Your task to perform on an android device: open app "Fetch Rewards" (install if not already installed) and enter user name: "Westwood@yahoo.com" and password: "qualifying" Image 0: 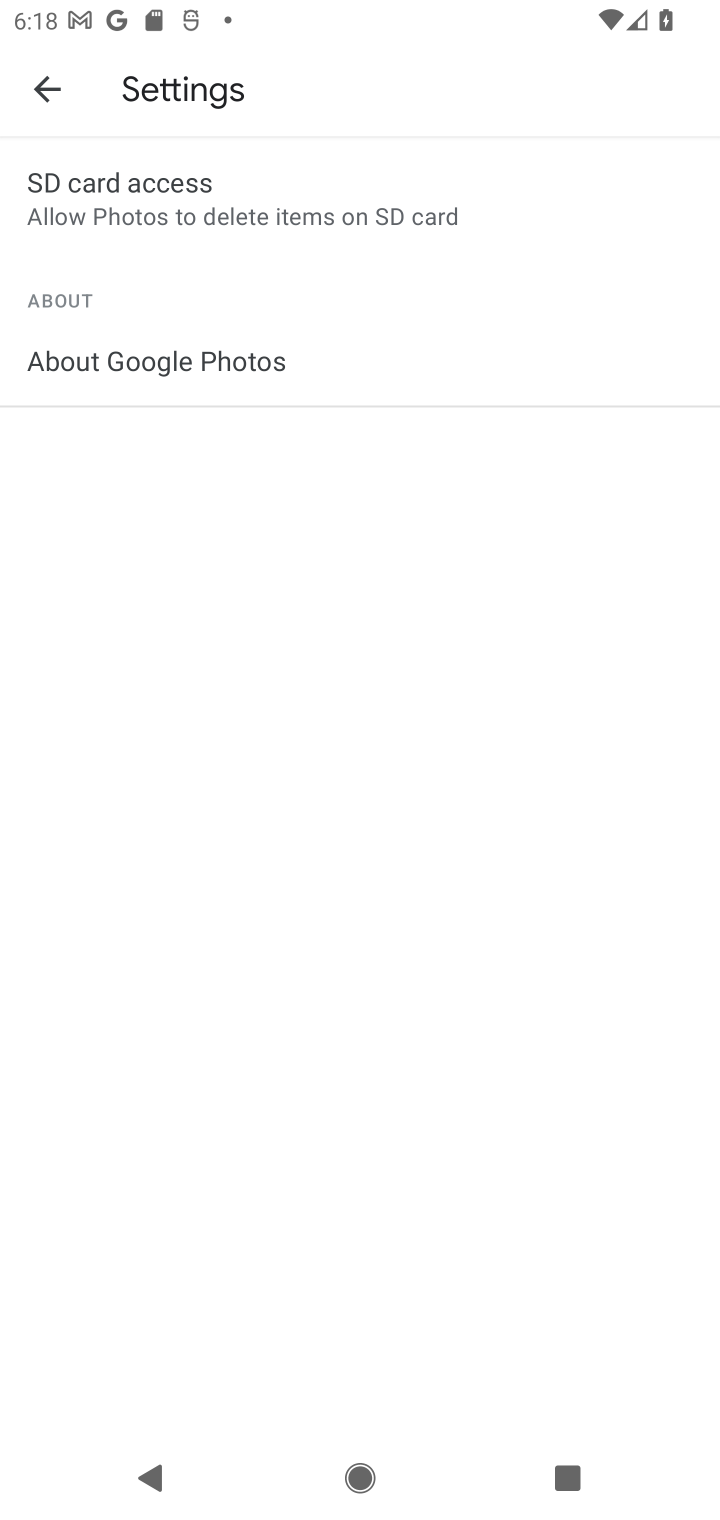
Step 0: press home button
Your task to perform on an android device: open app "Fetch Rewards" (install if not already installed) and enter user name: "Westwood@yahoo.com" and password: "qualifying" Image 1: 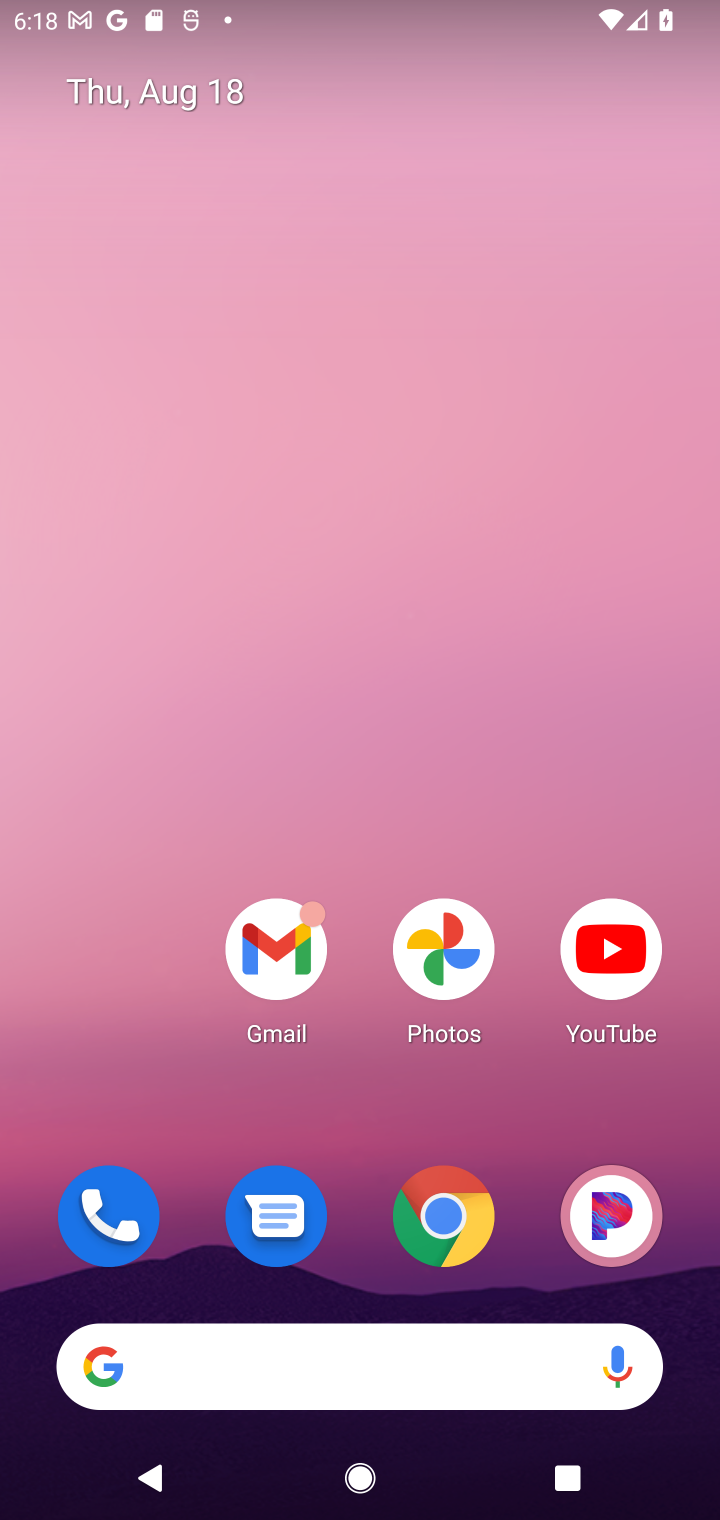
Step 1: drag from (533, 1264) to (474, 200)
Your task to perform on an android device: open app "Fetch Rewards" (install if not already installed) and enter user name: "Westwood@yahoo.com" and password: "qualifying" Image 2: 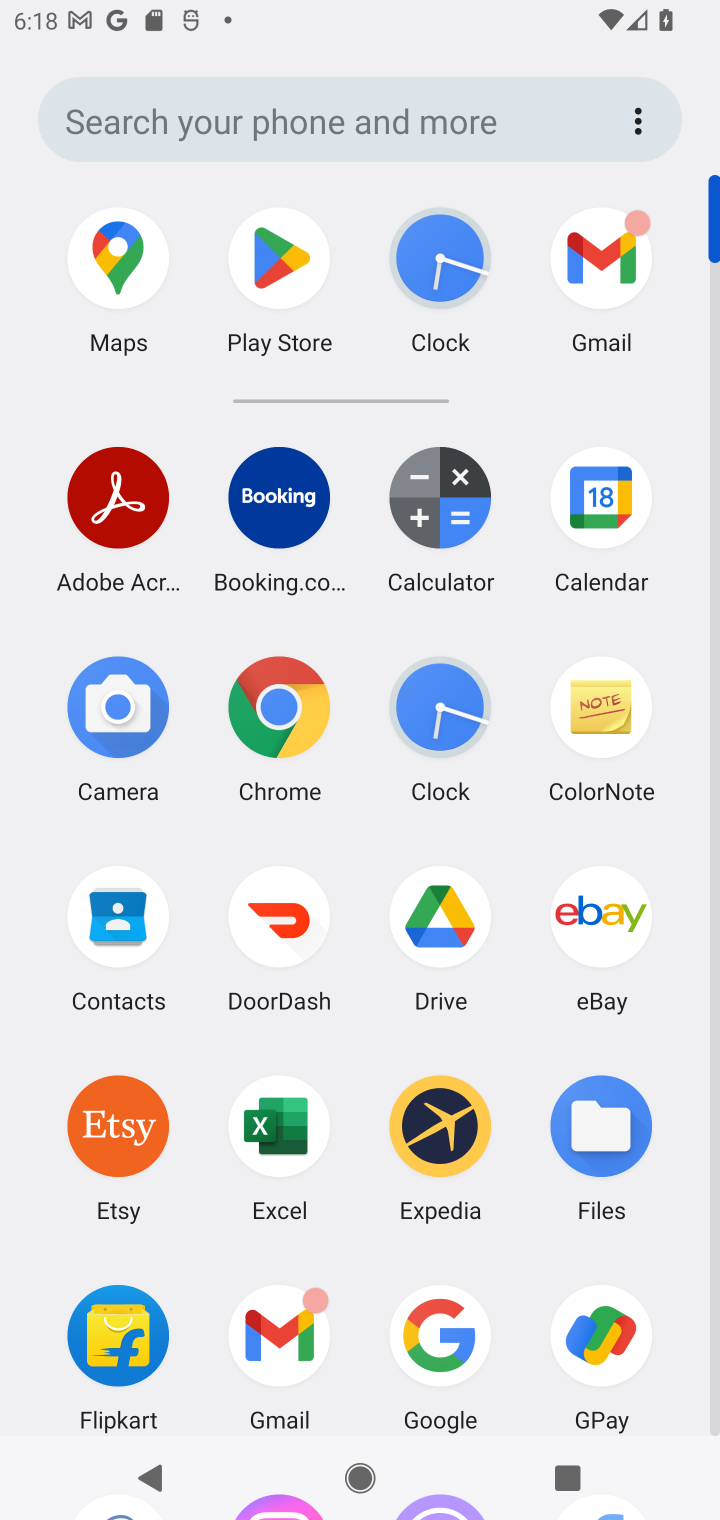
Step 2: drag from (525, 1264) to (512, 524)
Your task to perform on an android device: open app "Fetch Rewards" (install if not already installed) and enter user name: "Westwood@yahoo.com" and password: "qualifying" Image 3: 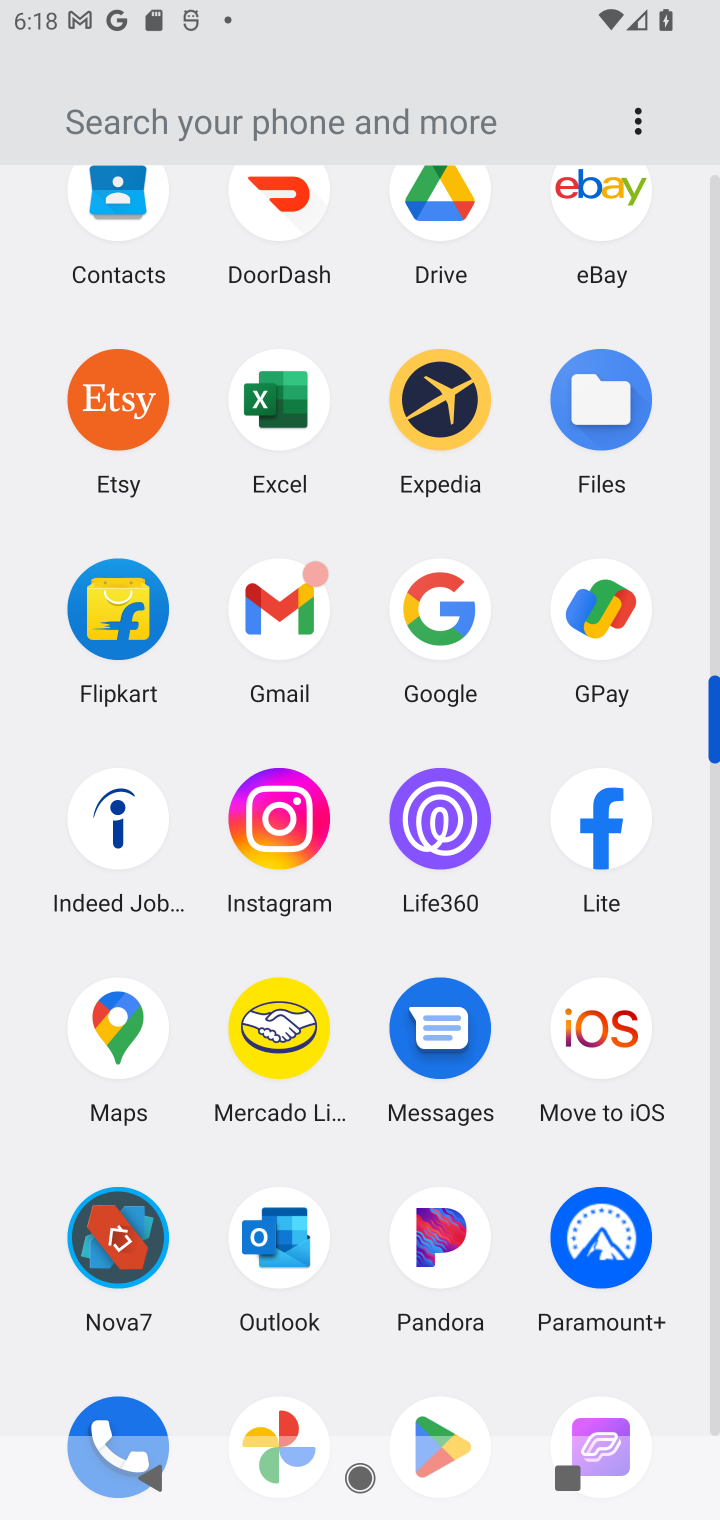
Step 3: drag from (512, 1315) to (501, 577)
Your task to perform on an android device: open app "Fetch Rewards" (install if not already installed) and enter user name: "Westwood@yahoo.com" and password: "qualifying" Image 4: 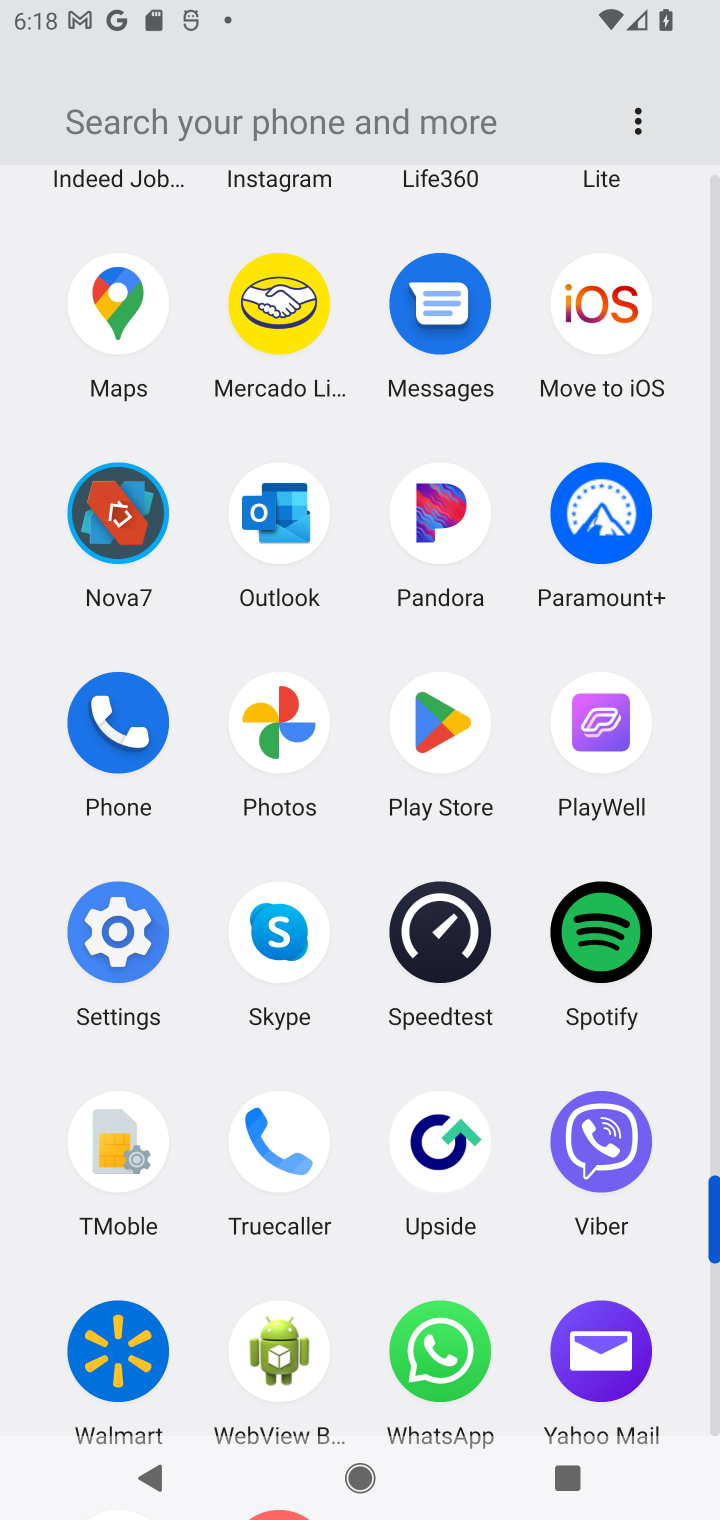
Step 4: click (441, 718)
Your task to perform on an android device: open app "Fetch Rewards" (install if not already installed) and enter user name: "Westwood@yahoo.com" and password: "qualifying" Image 5: 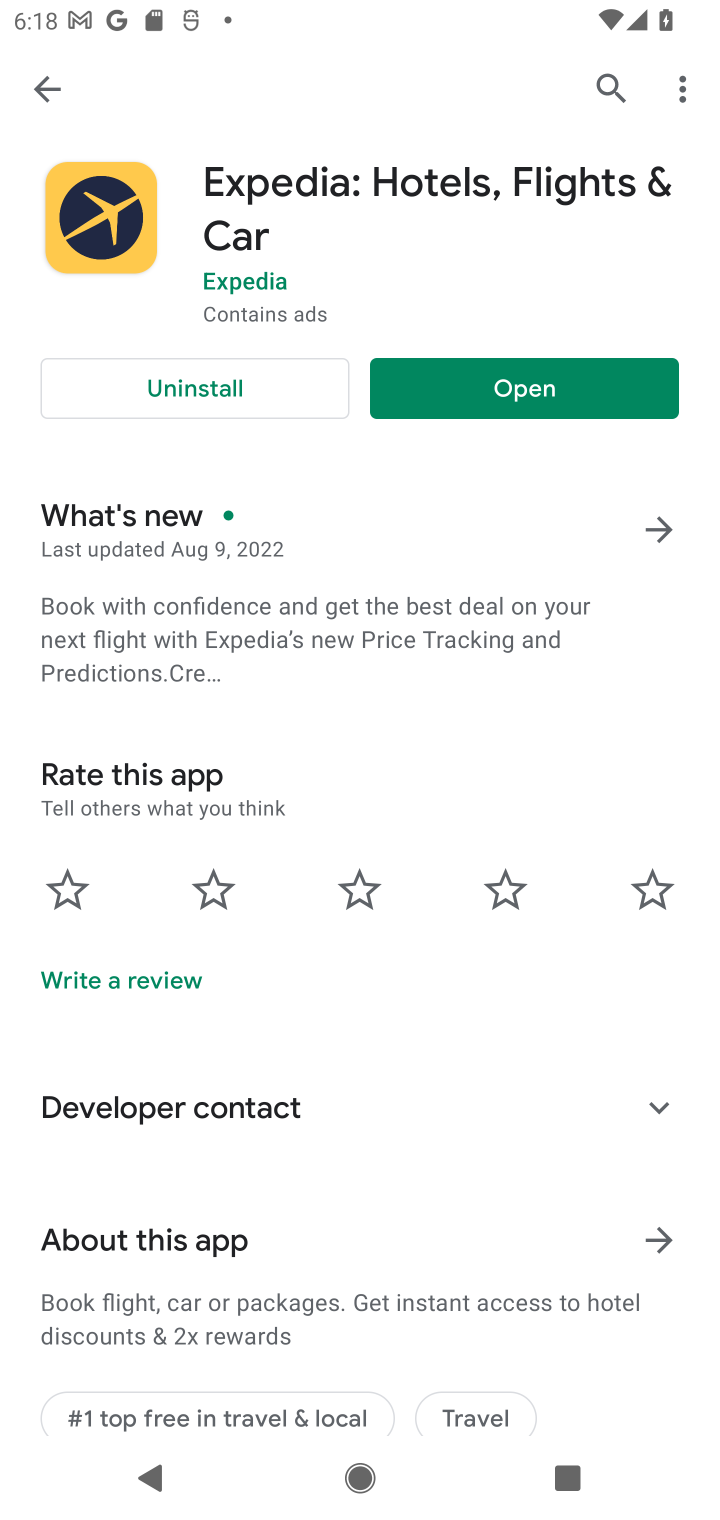
Step 5: click (616, 78)
Your task to perform on an android device: open app "Fetch Rewards" (install if not already installed) and enter user name: "Westwood@yahoo.com" and password: "qualifying" Image 6: 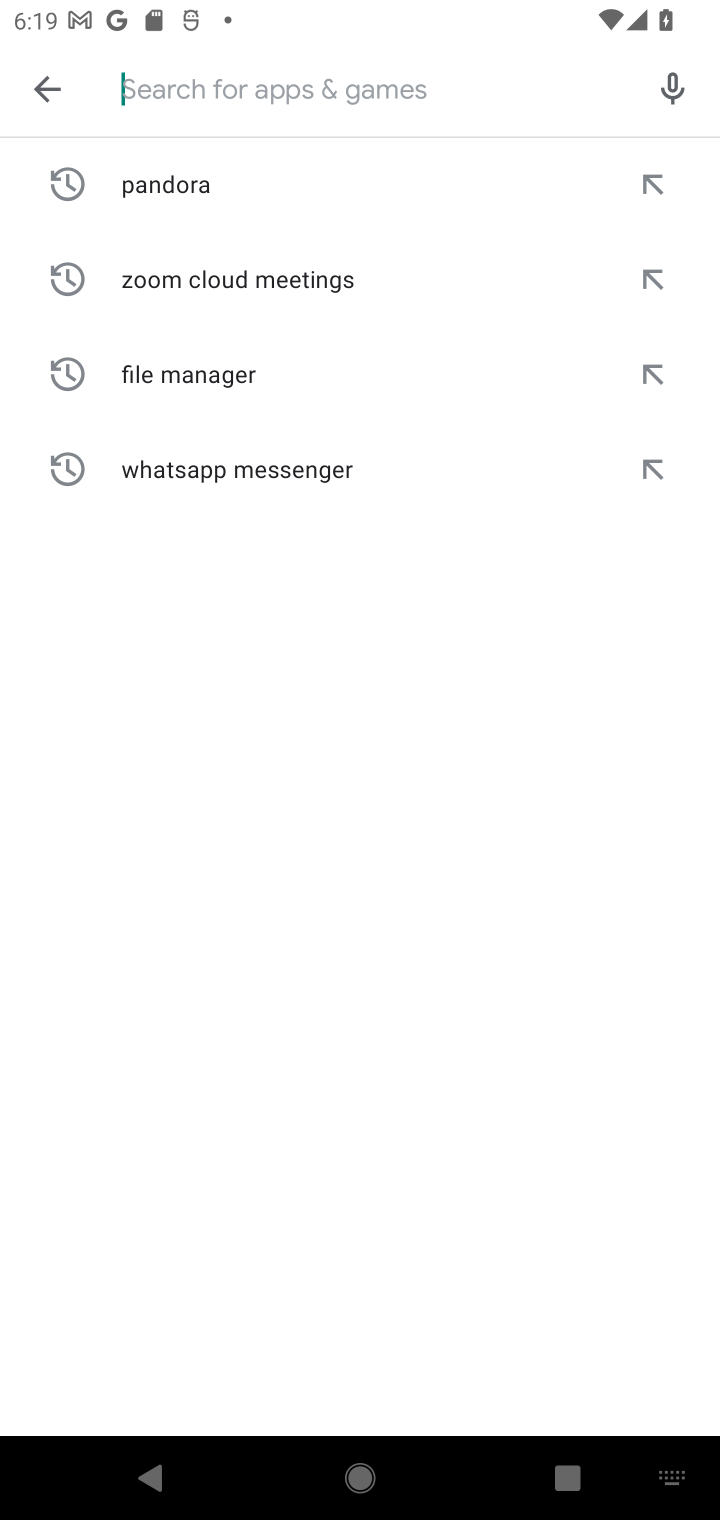
Step 6: type "Fetch Rewards"
Your task to perform on an android device: open app "Fetch Rewards" (install if not already installed) and enter user name: "Westwood@yahoo.com" and password: "qualifying" Image 7: 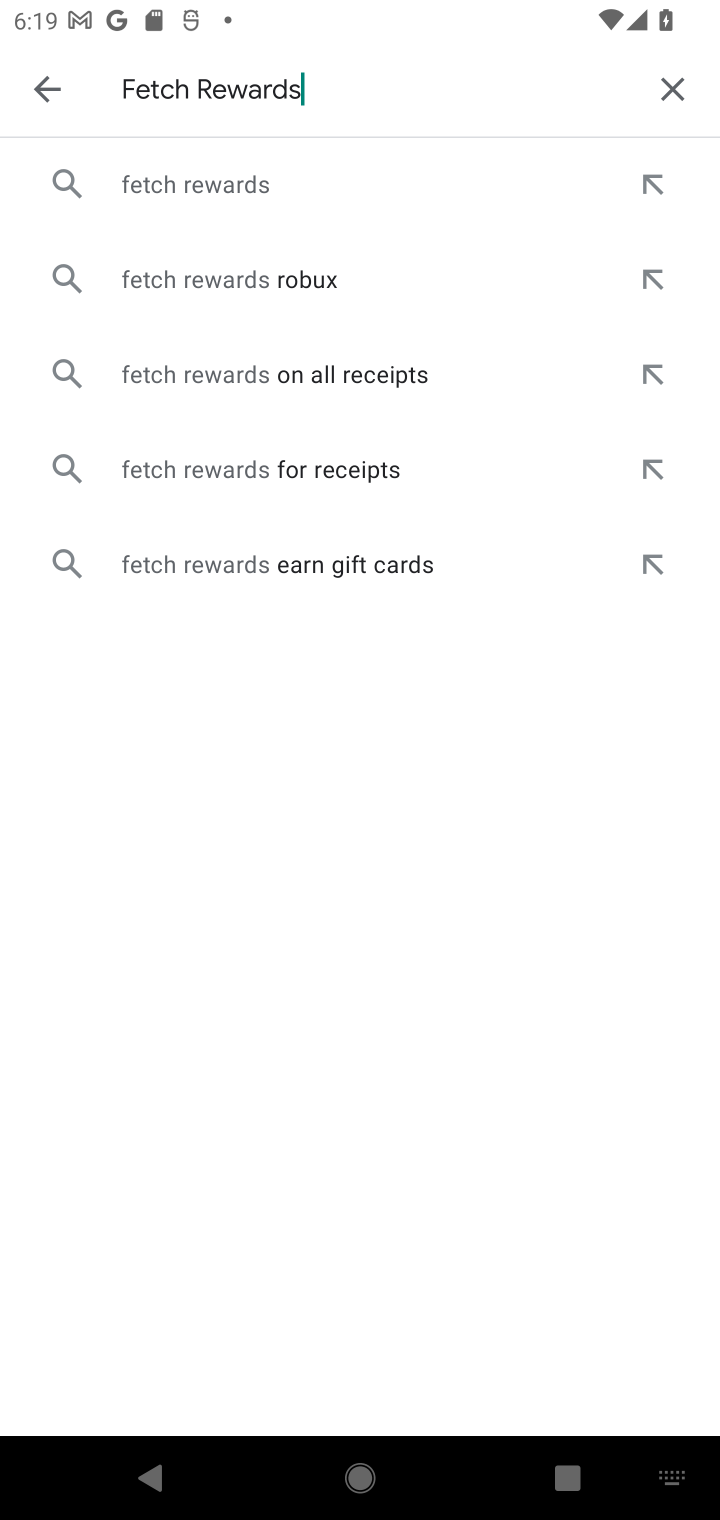
Step 7: click (187, 181)
Your task to perform on an android device: open app "Fetch Rewards" (install if not already installed) and enter user name: "Westwood@yahoo.com" and password: "qualifying" Image 8: 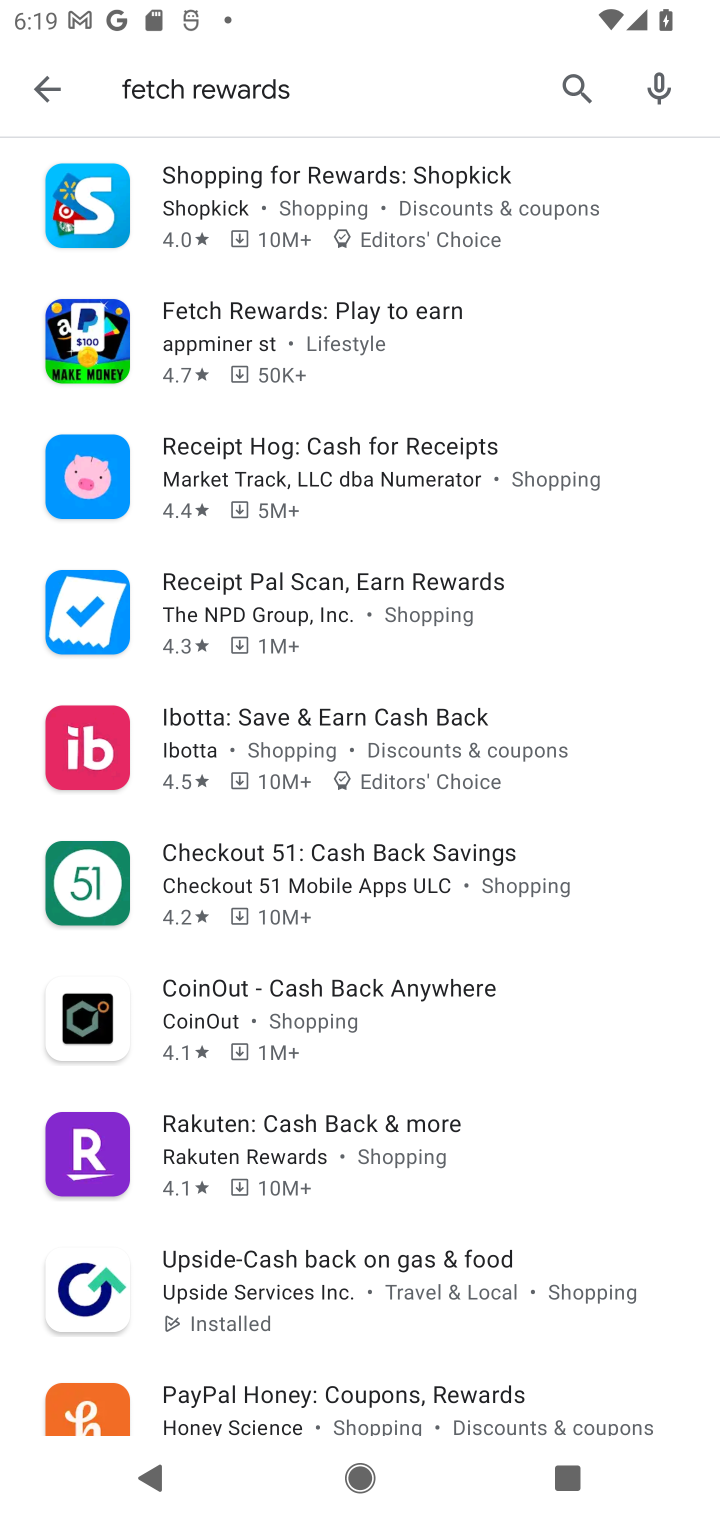
Step 8: drag from (493, 1278) to (511, 377)
Your task to perform on an android device: open app "Fetch Rewards" (install if not already installed) and enter user name: "Westwood@yahoo.com" and password: "qualifying" Image 9: 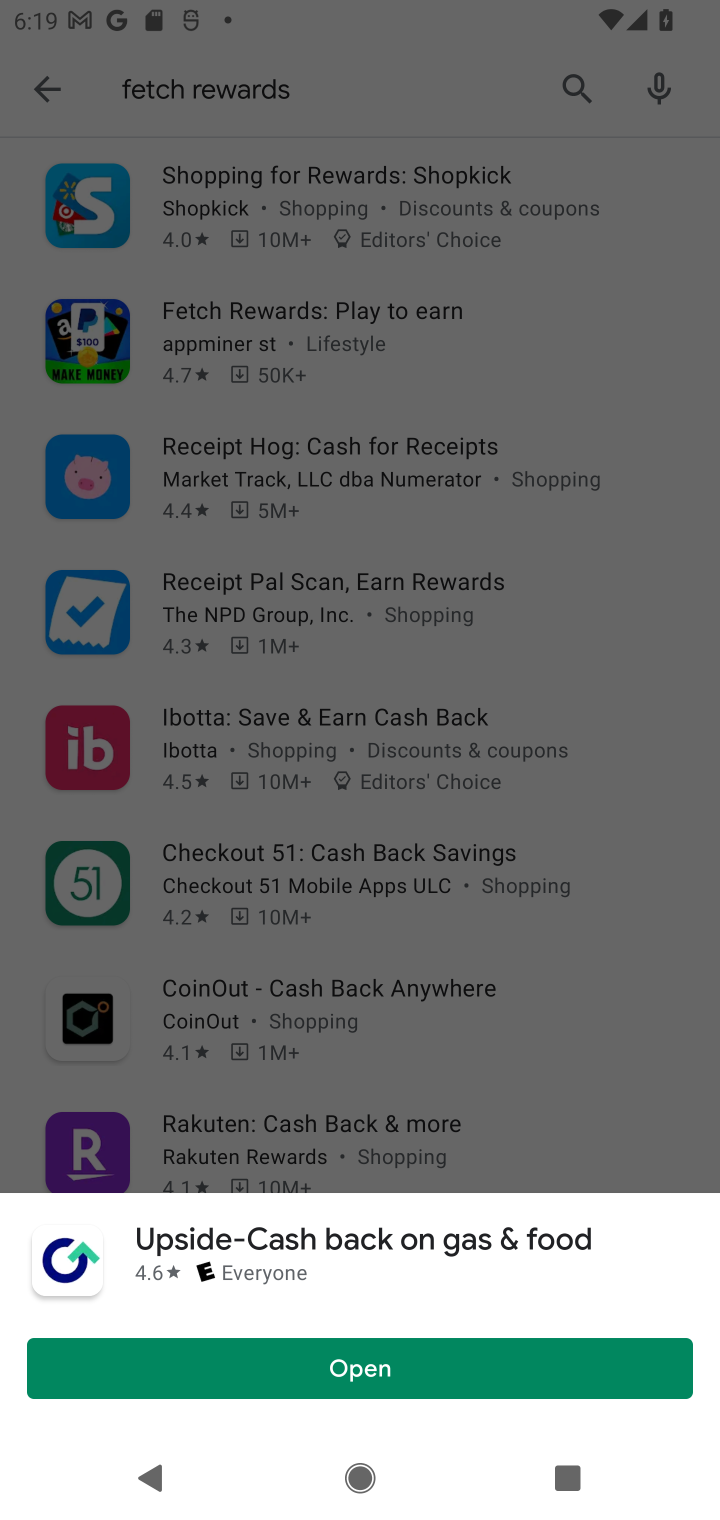
Step 9: click (603, 1055)
Your task to perform on an android device: open app "Fetch Rewards" (install if not already installed) and enter user name: "Westwood@yahoo.com" and password: "qualifying" Image 10: 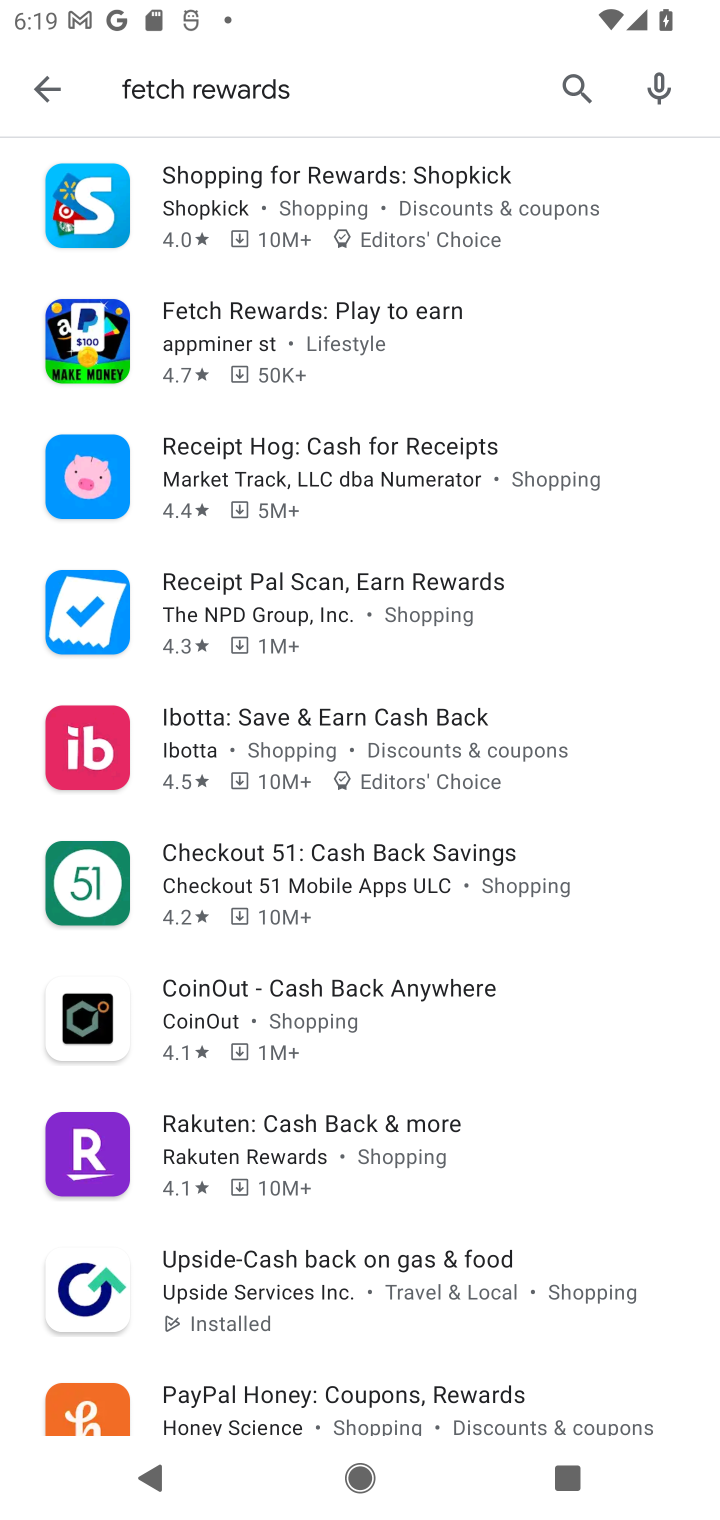
Step 10: drag from (479, 1078) to (479, 100)
Your task to perform on an android device: open app "Fetch Rewards" (install if not already installed) and enter user name: "Westwood@yahoo.com" and password: "qualifying" Image 11: 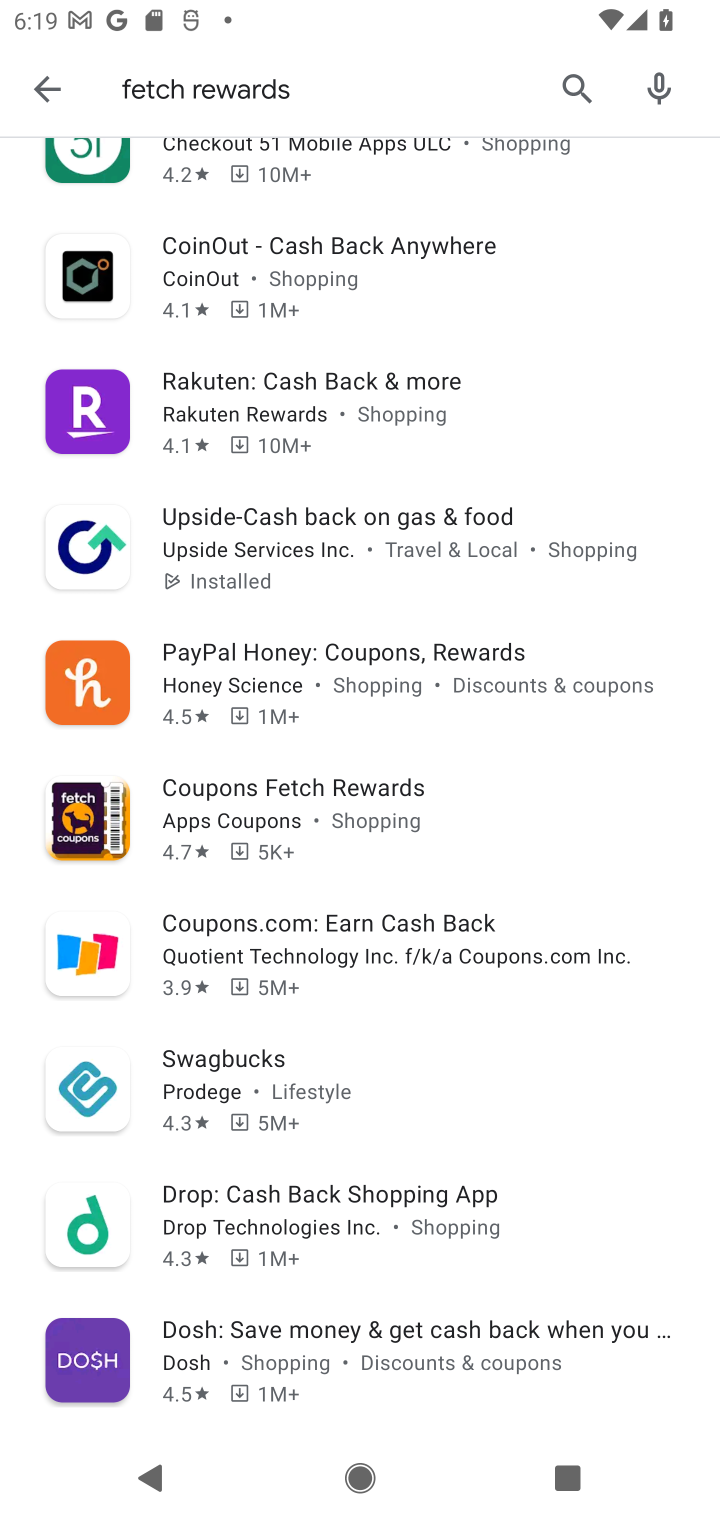
Step 11: drag from (579, 811) to (580, 1353)
Your task to perform on an android device: open app "Fetch Rewards" (install if not already installed) and enter user name: "Westwood@yahoo.com" and password: "qualifying" Image 12: 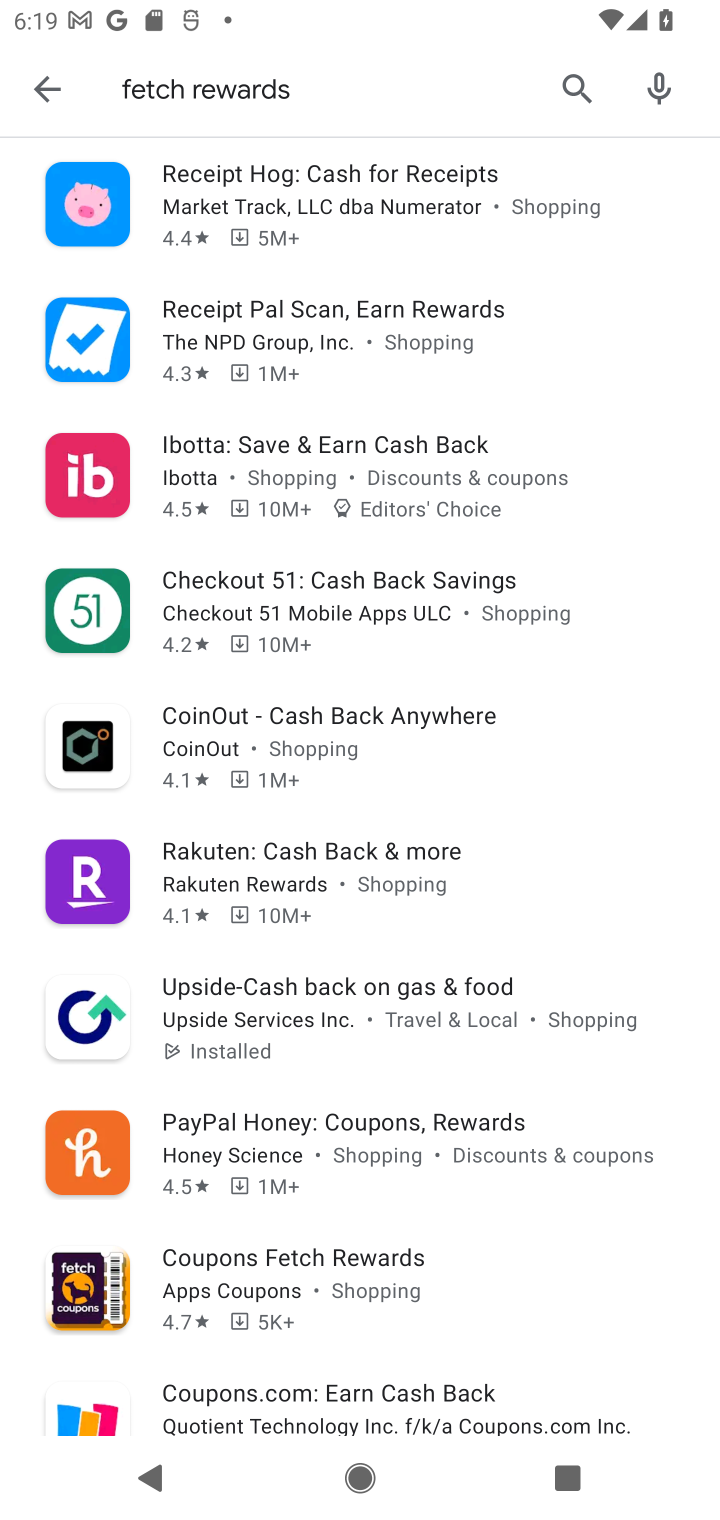
Step 12: drag from (603, 419) to (579, 887)
Your task to perform on an android device: open app "Fetch Rewards" (install if not already installed) and enter user name: "Westwood@yahoo.com" and password: "qualifying" Image 13: 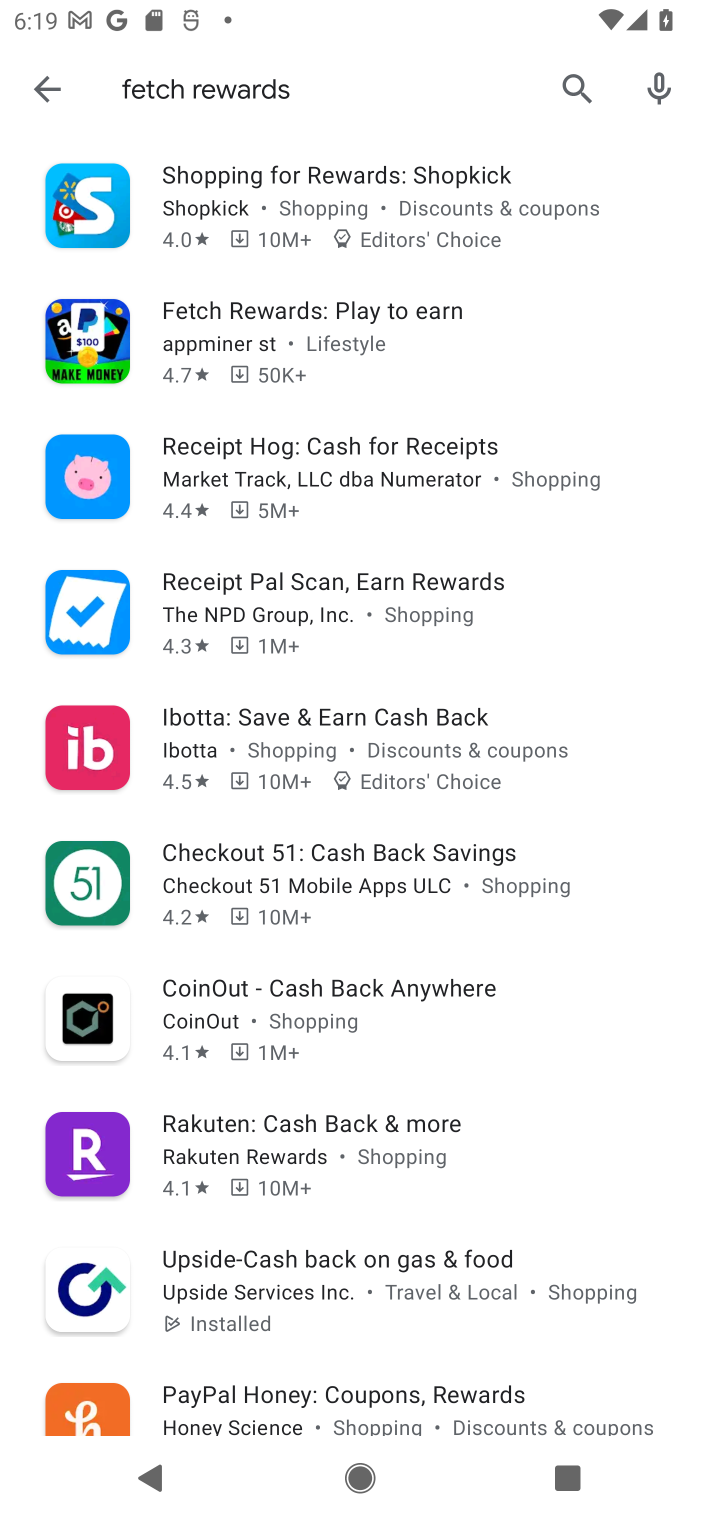
Step 13: click (225, 319)
Your task to perform on an android device: open app "Fetch Rewards" (install if not already installed) and enter user name: "Westwood@yahoo.com" and password: "qualifying" Image 14: 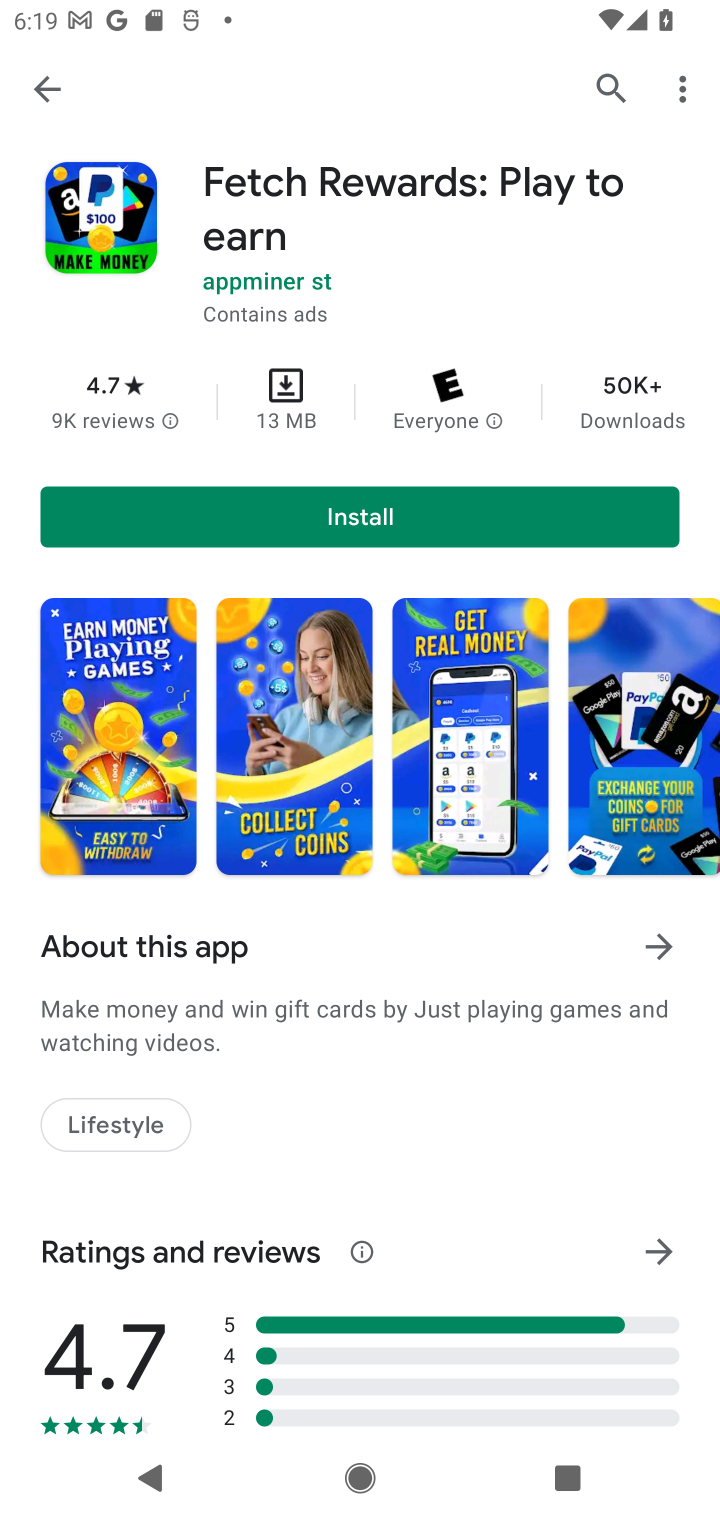
Step 14: click (350, 513)
Your task to perform on an android device: open app "Fetch Rewards" (install if not already installed) and enter user name: "Westwood@yahoo.com" and password: "qualifying" Image 15: 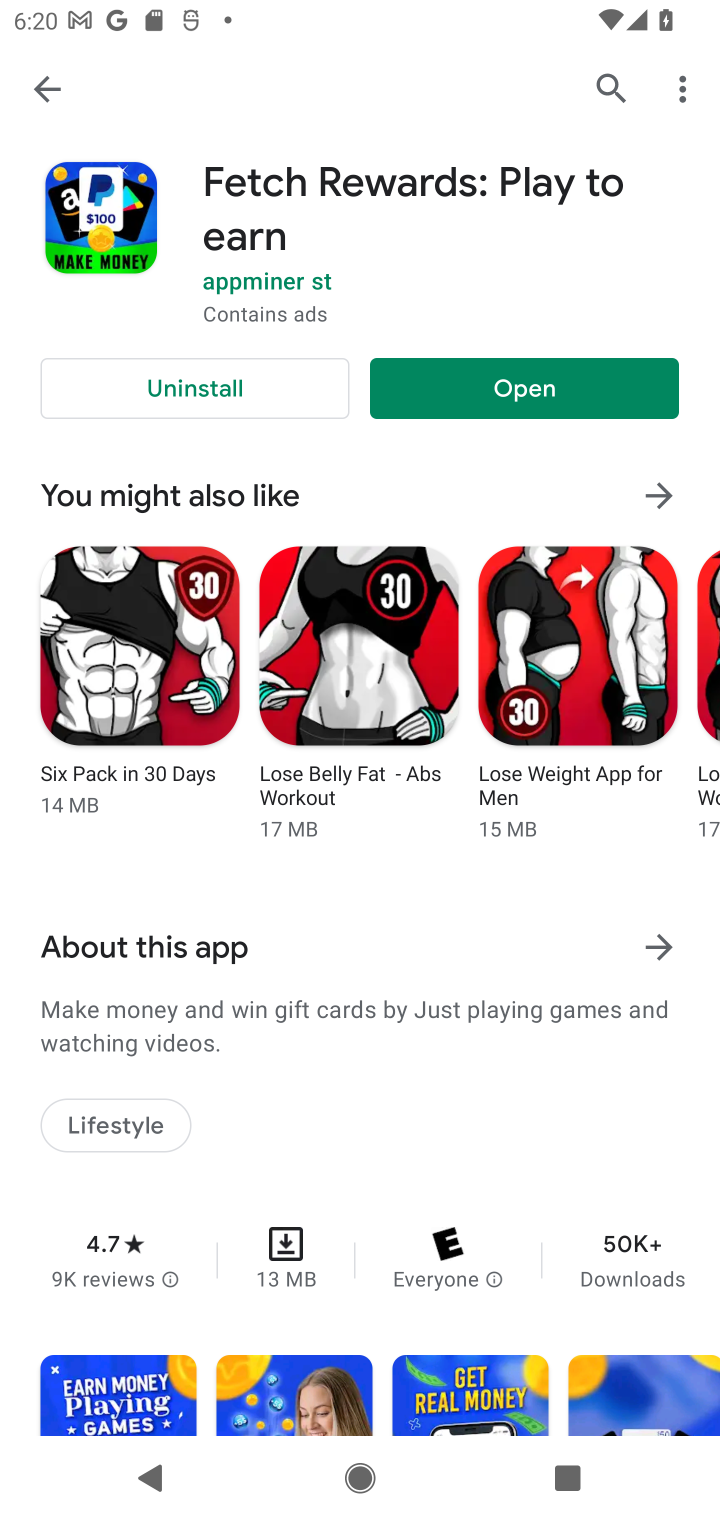
Step 15: click (518, 382)
Your task to perform on an android device: open app "Fetch Rewards" (install if not already installed) and enter user name: "Westwood@yahoo.com" and password: "qualifying" Image 16: 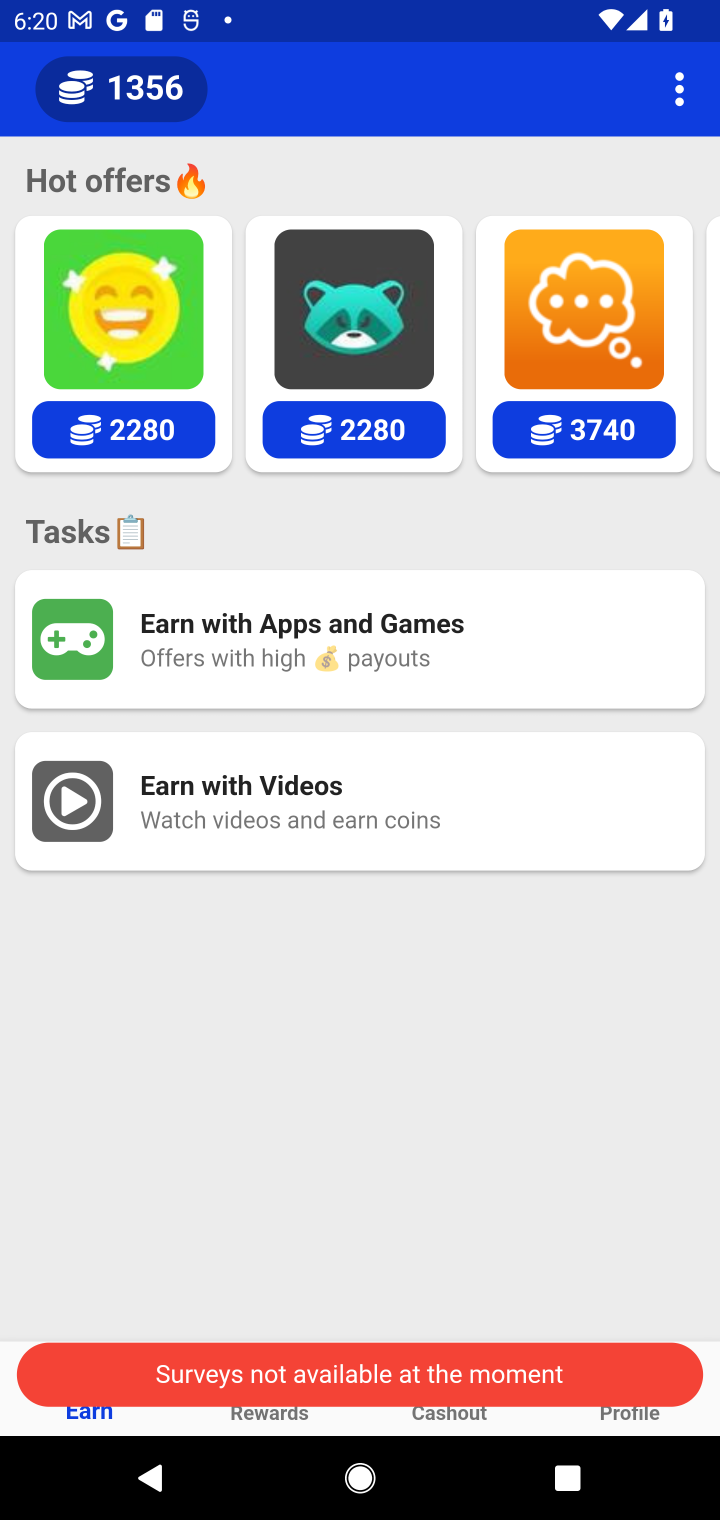
Step 16: click (677, 109)
Your task to perform on an android device: open app "Fetch Rewards" (install if not already installed) and enter user name: "Westwood@yahoo.com" and password: "qualifying" Image 17: 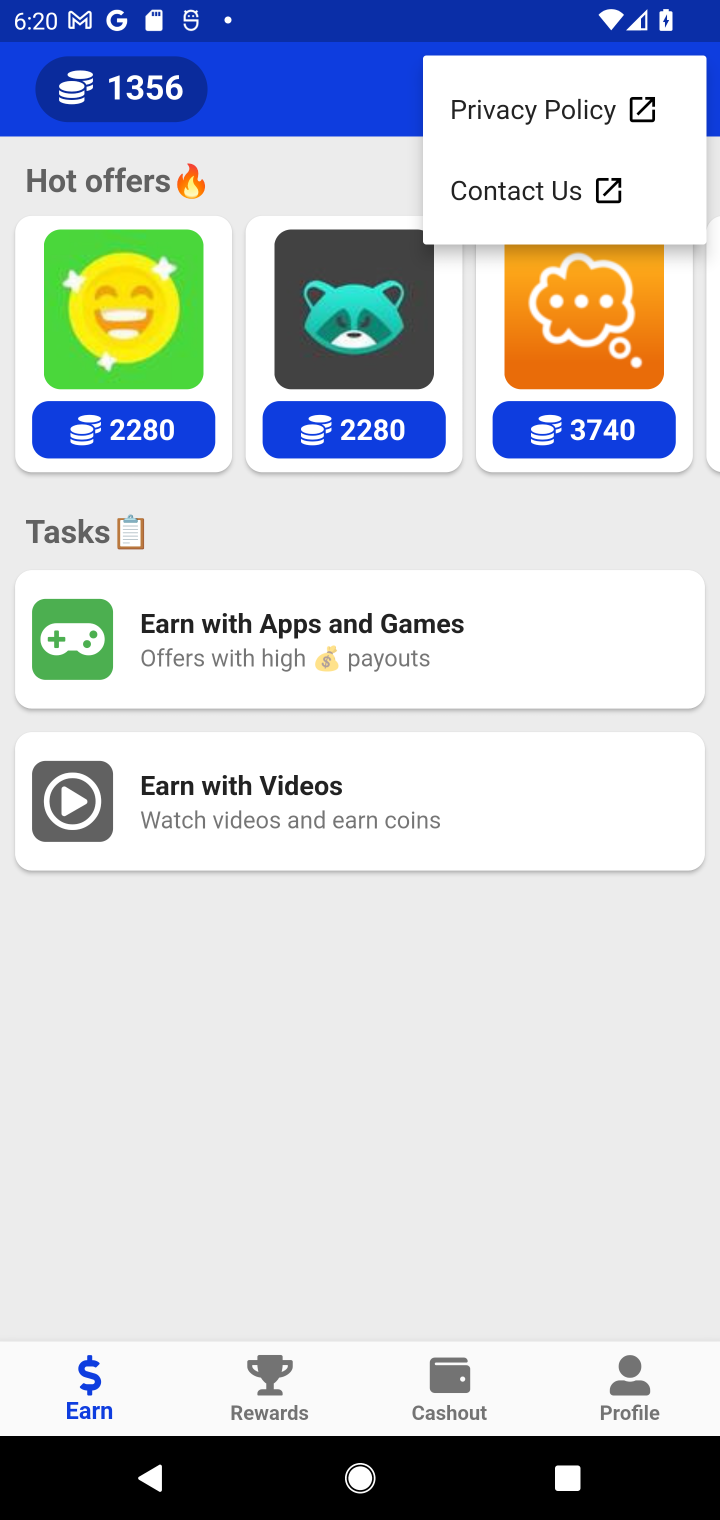
Step 17: click (631, 1397)
Your task to perform on an android device: open app "Fetch Rewards" (install if not already installed) and enter user name: "Westwood@yahoo.com" and password: "qualifying" Image 18: 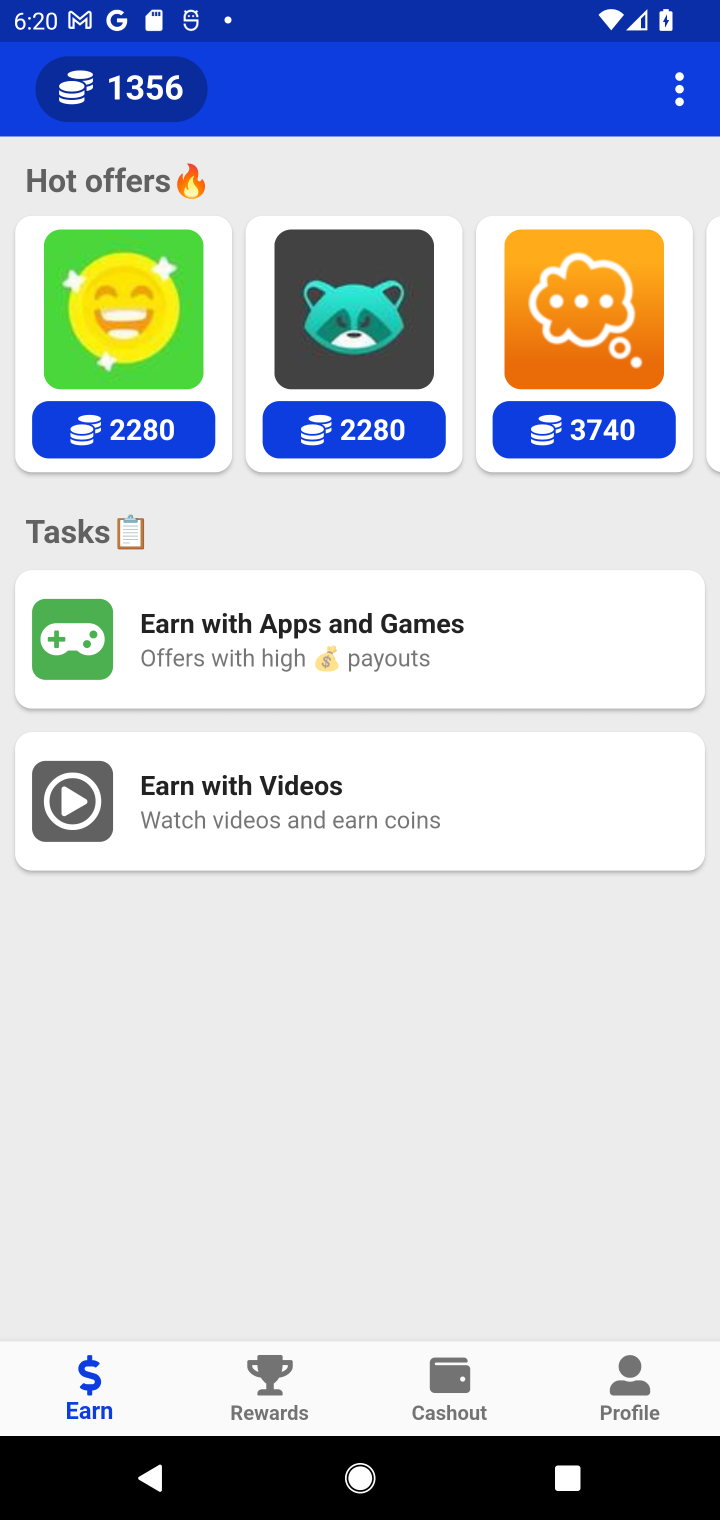
Step 18: click (631, 1382)
Your task to perform on an android device: open app "Fetch Rewards" (install if not already installed) and enter user name: "Westwood@yahoo.com" and password: "qualifying" Image 19: 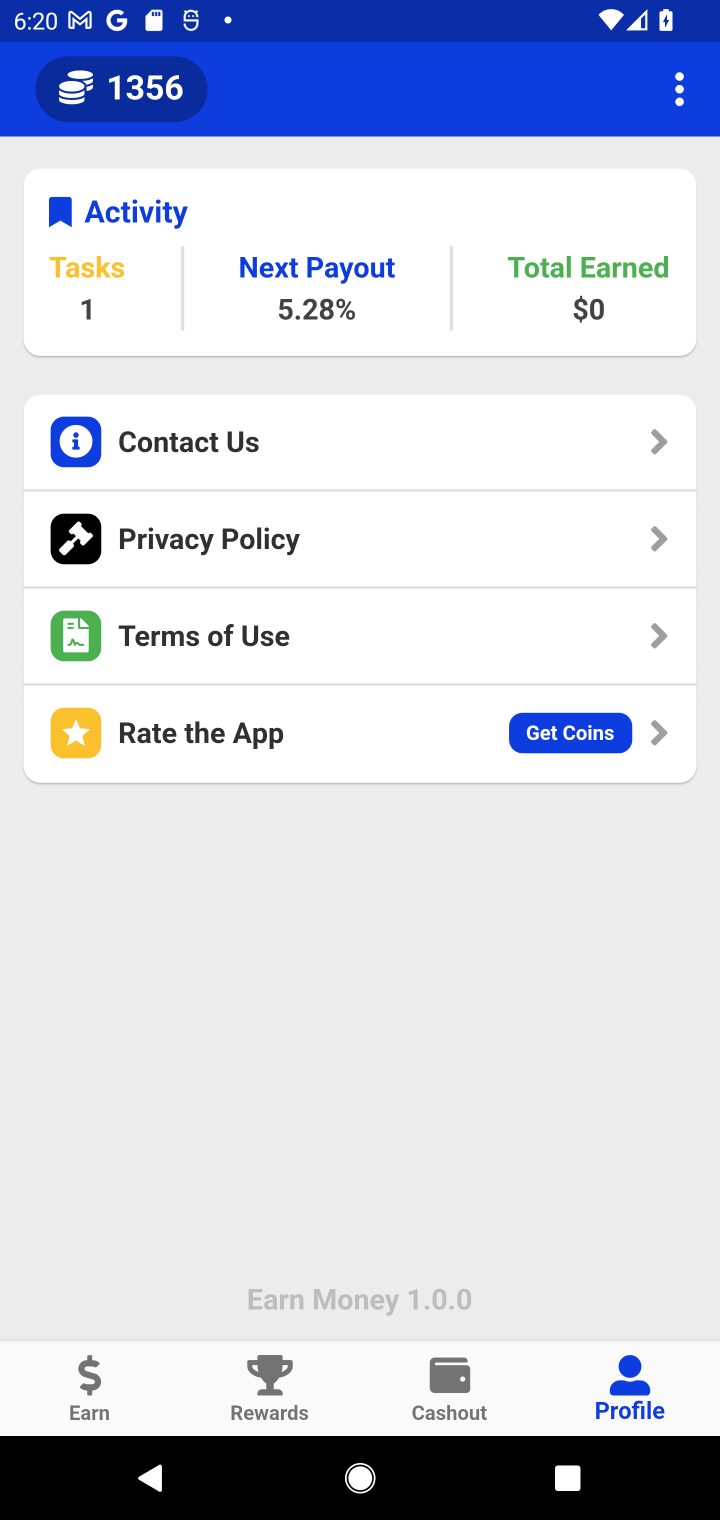
Step 19: task complete